Your task to perform on an android device: Check the latest toasters on Target. Image 0: 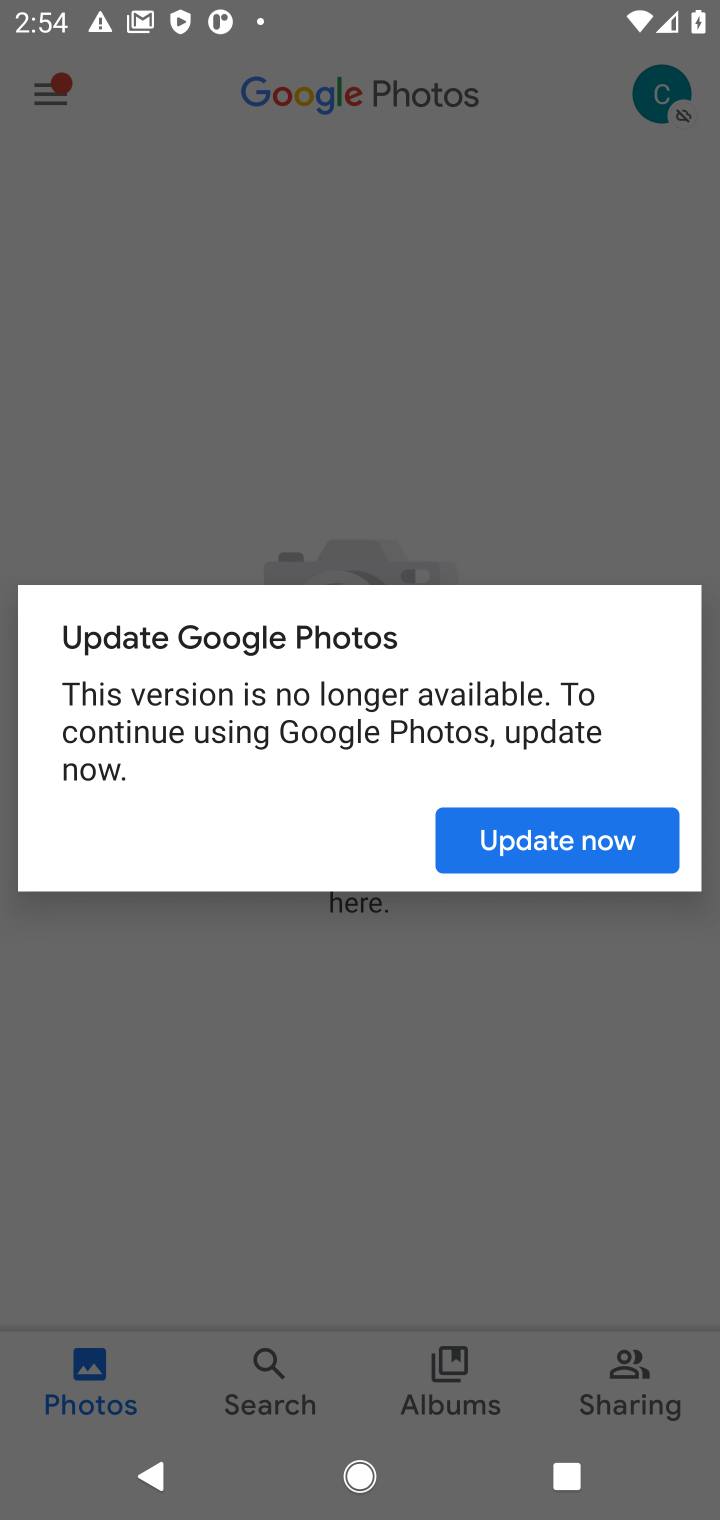
Step 0: press home button
Your task to perform on an android device: Check the latest toasters on Target. Image 1: 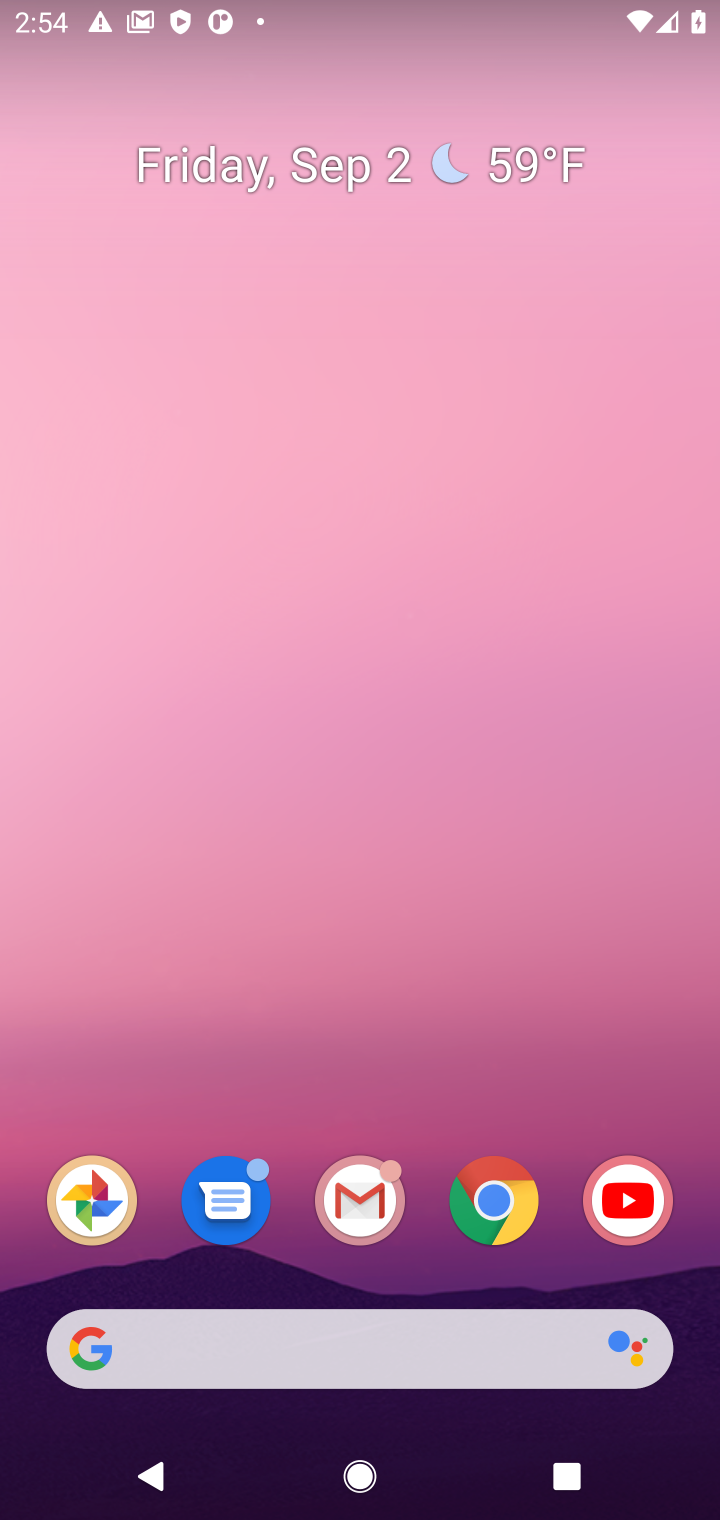
Step 1: click (493, 1206)
Your task to perform on an android device: Check the latest toasters on Target. Image 2: 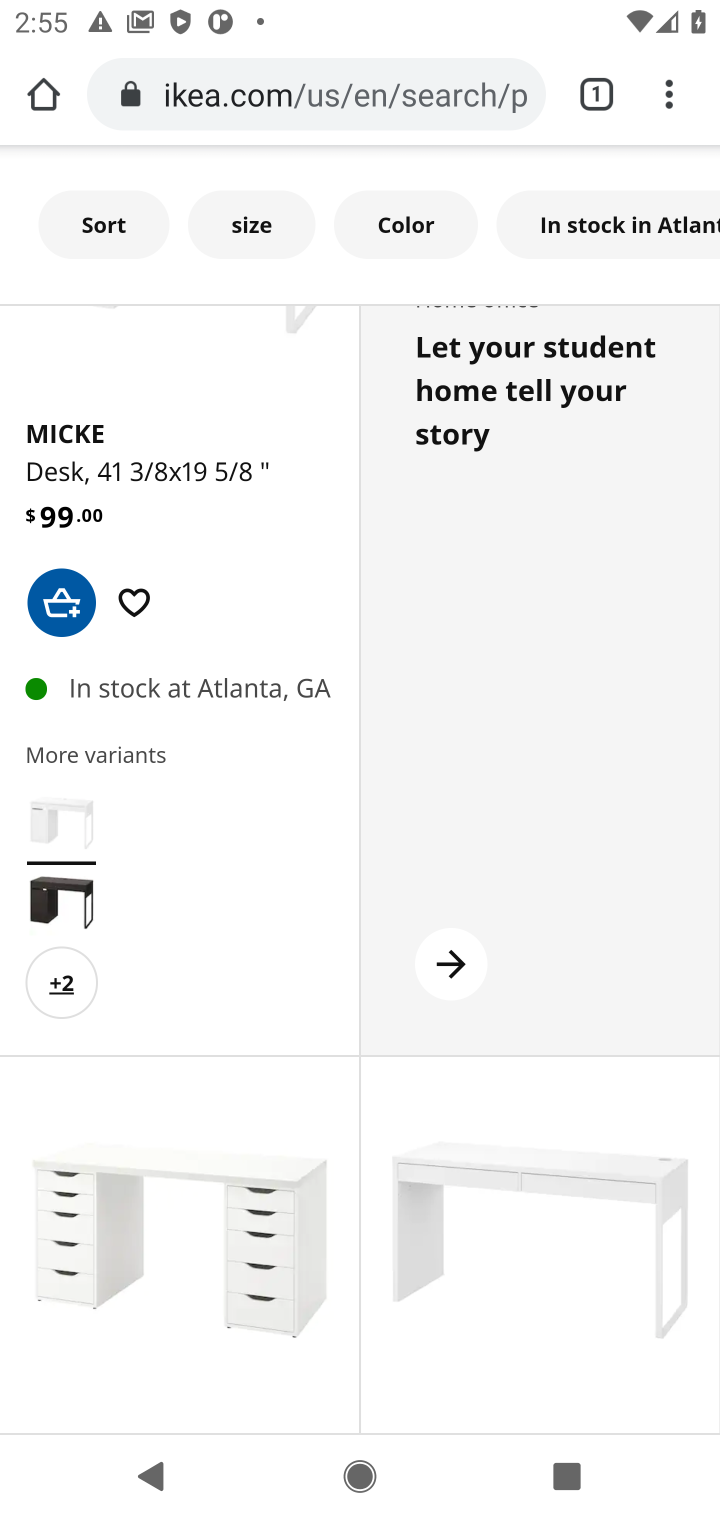
Step 2: click (368, 77)
Your task to perform on an android device: Check the latest toasters on Target. Image 3: 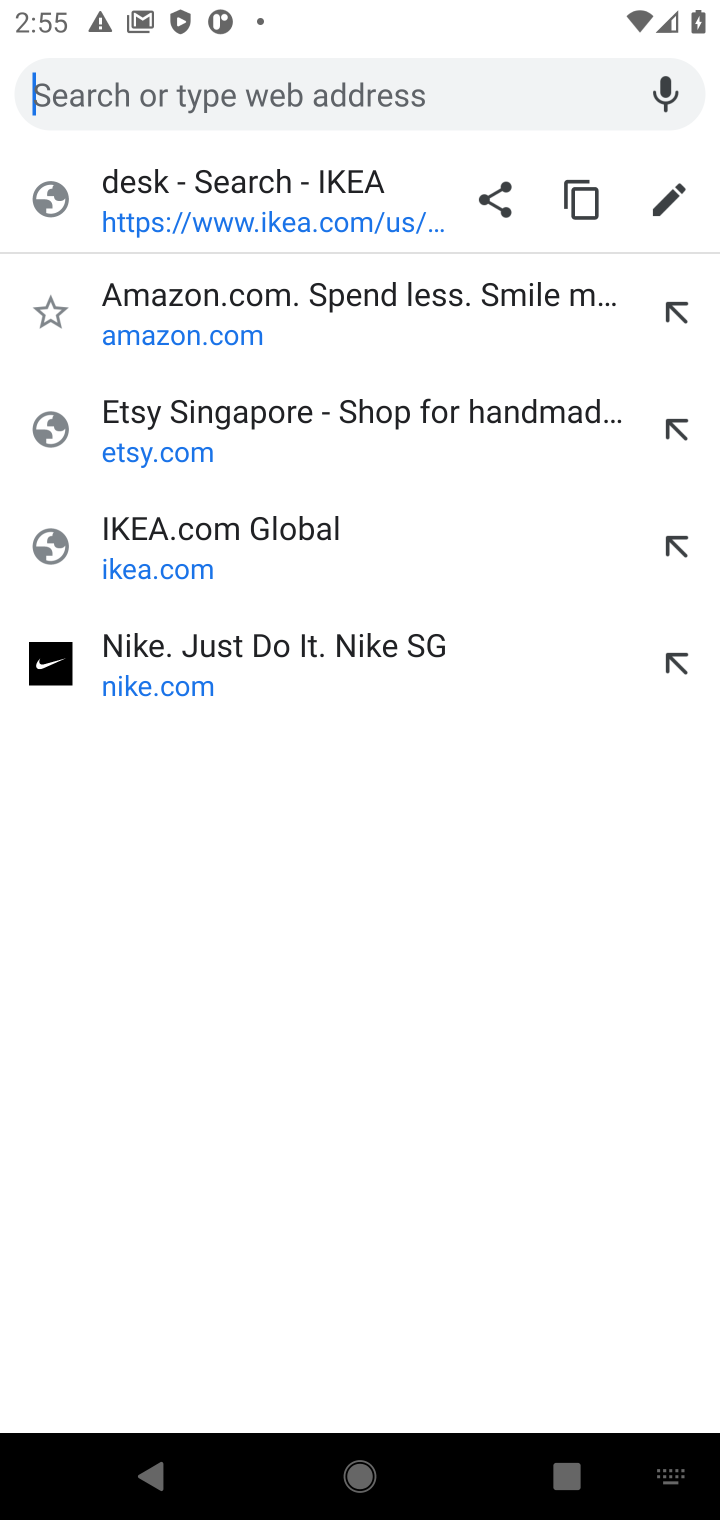
Step 3: click (355, 88)
Your task to perform on an android device: Check the latest toasters on Target. Image 4: 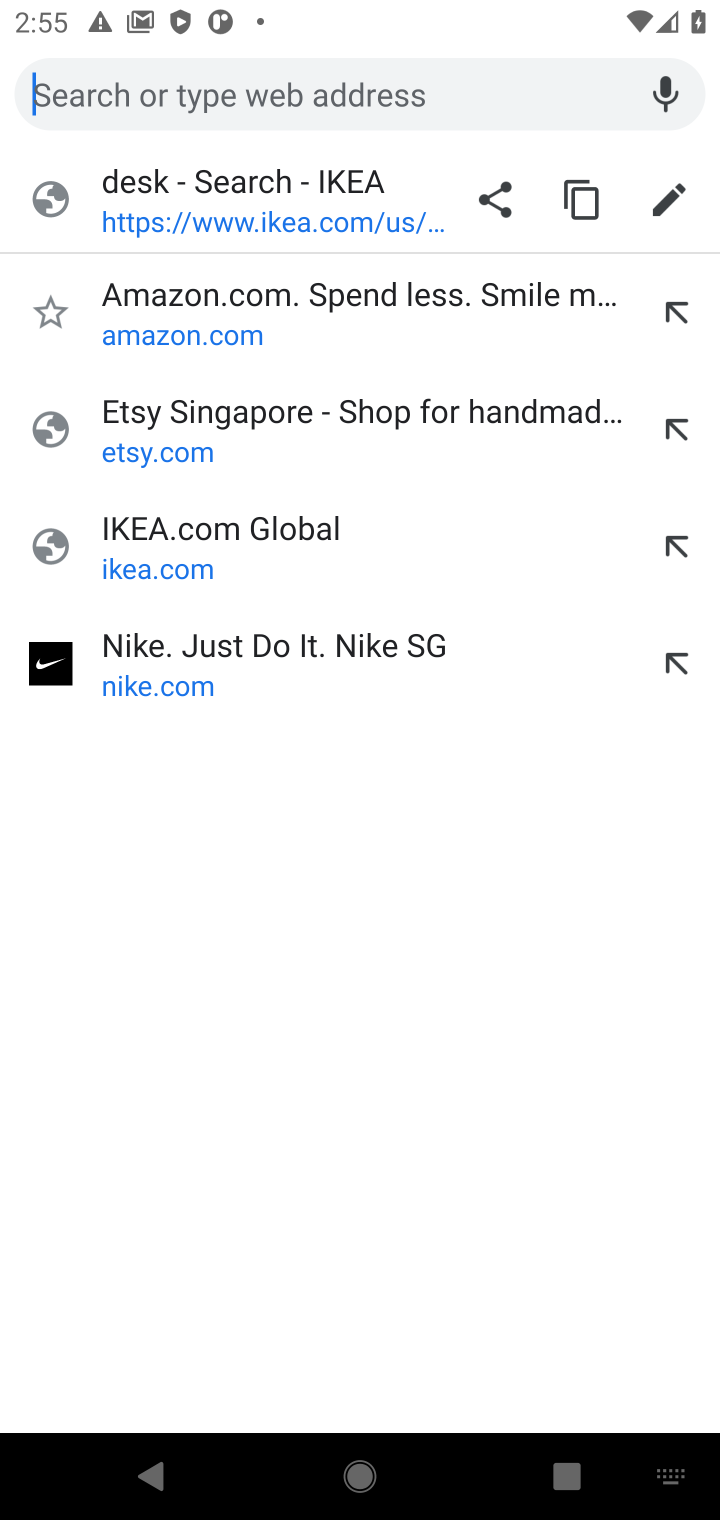
Step 4: type " Target"
Your task to perform on an android device: Check the latest toasters on Target. Image 5: 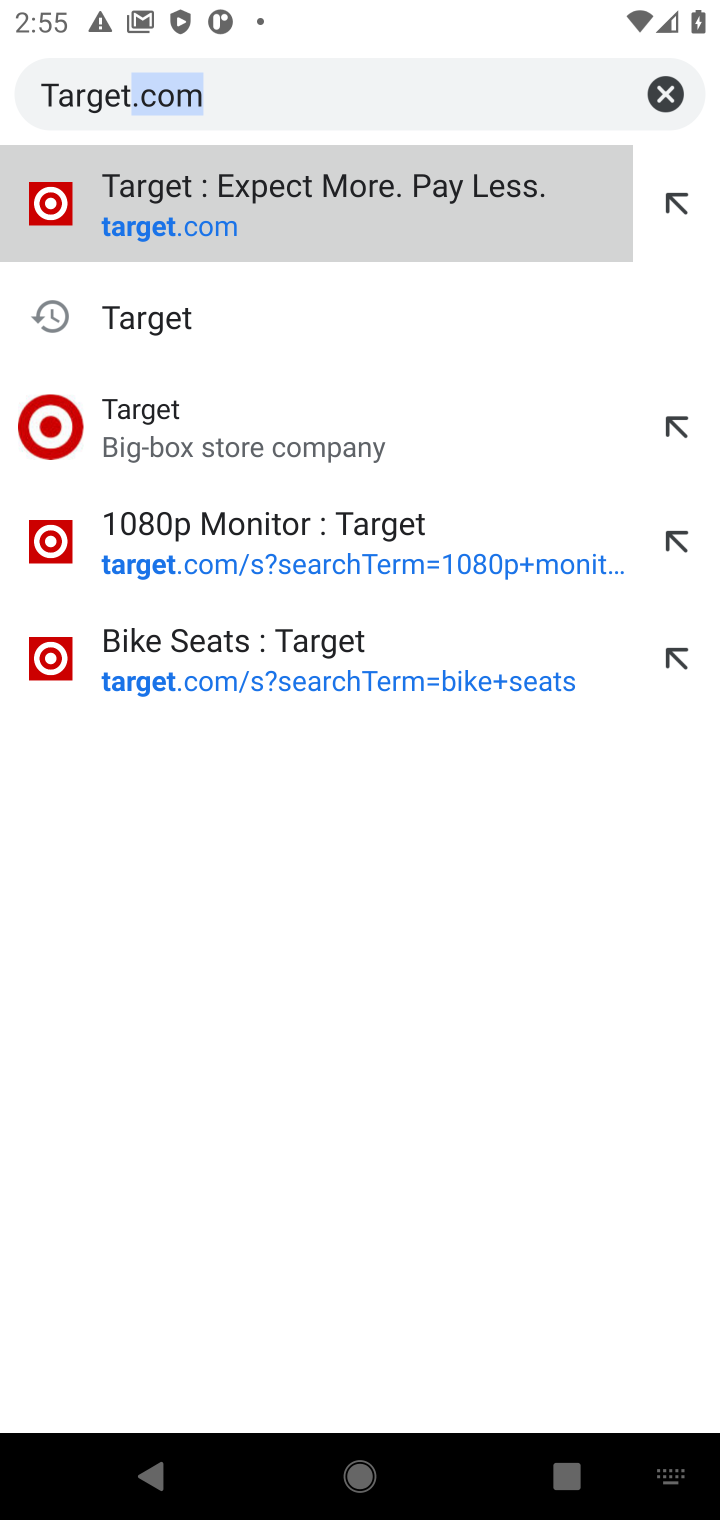
Step 5: press enter
Your task to perform on an android device: Check the latest toasters on Target. Image 6: 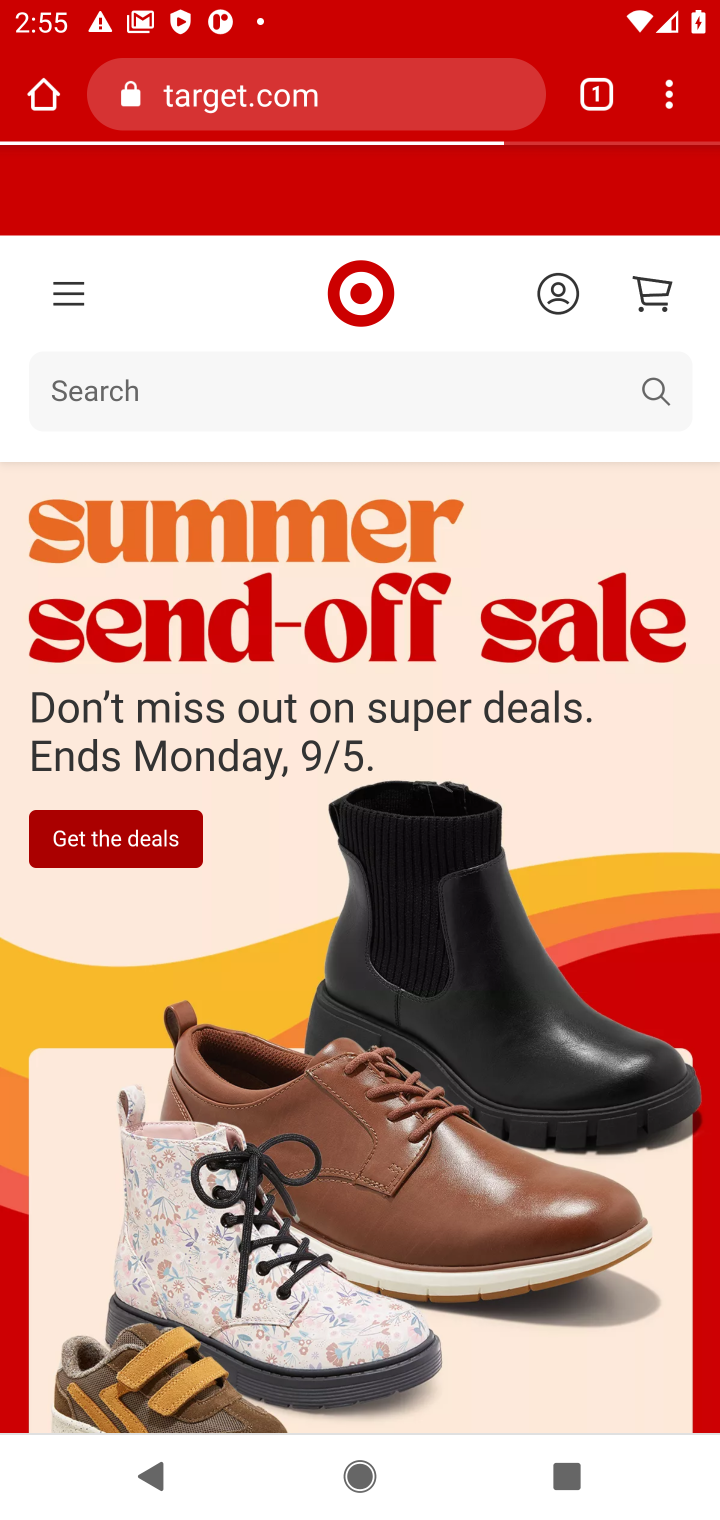
Step 6: click (466, 388)
Your task to perform on an android device: Check the latest toasters on Target. Image 7: 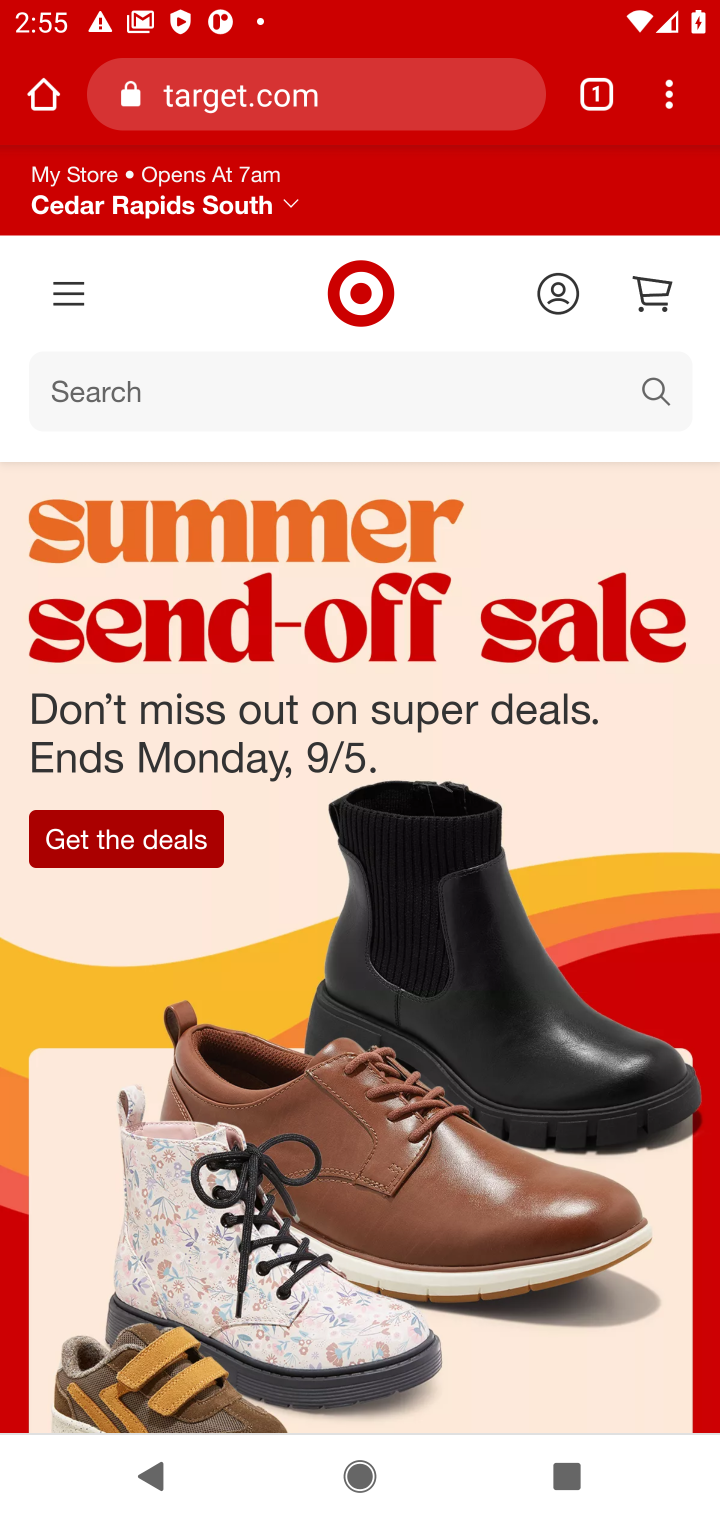
Step 7: click (94, 390)
Your task to perform on an android device: Check the latest toasters on Target. Image 8: 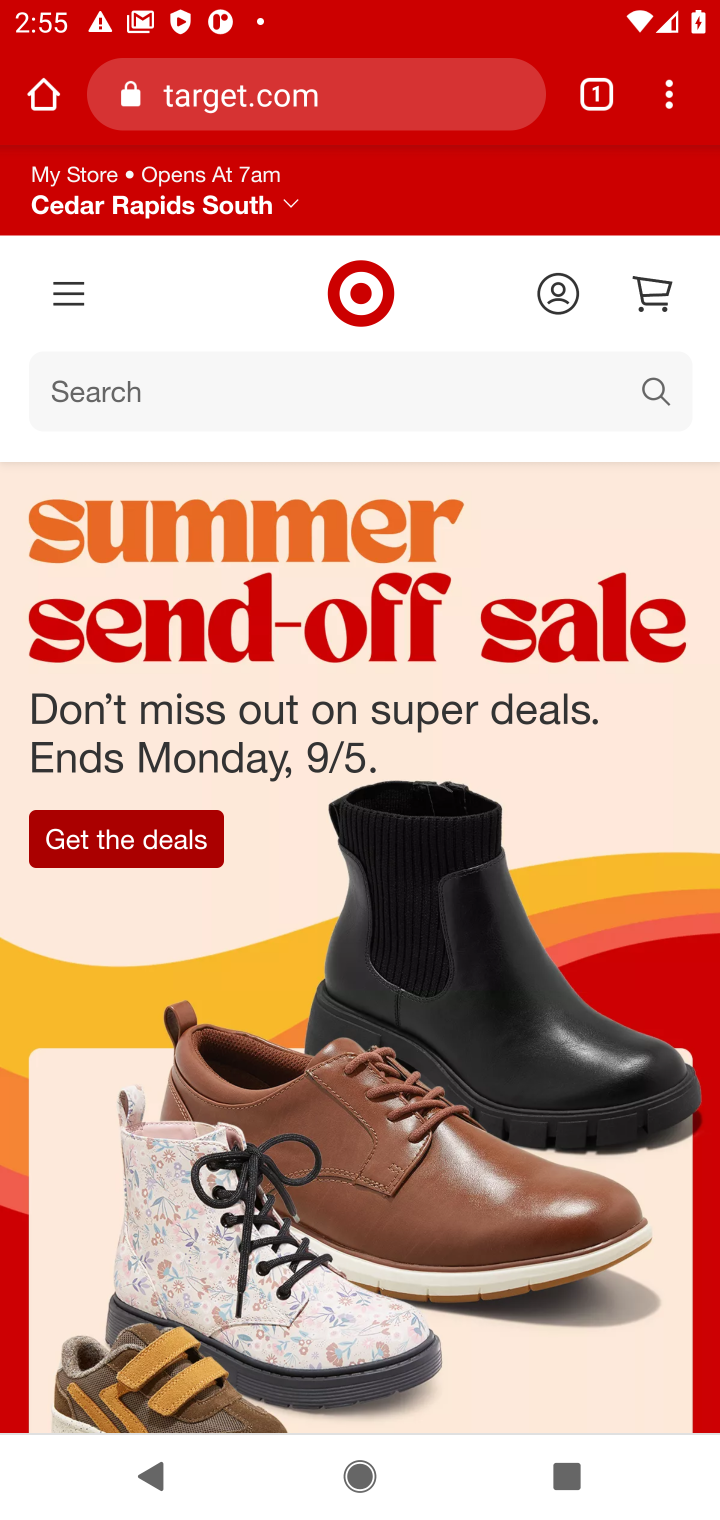
Step 8: click (643, 394)
Your task to perform on an android device: Check the latest toasters on Target. Image 9: 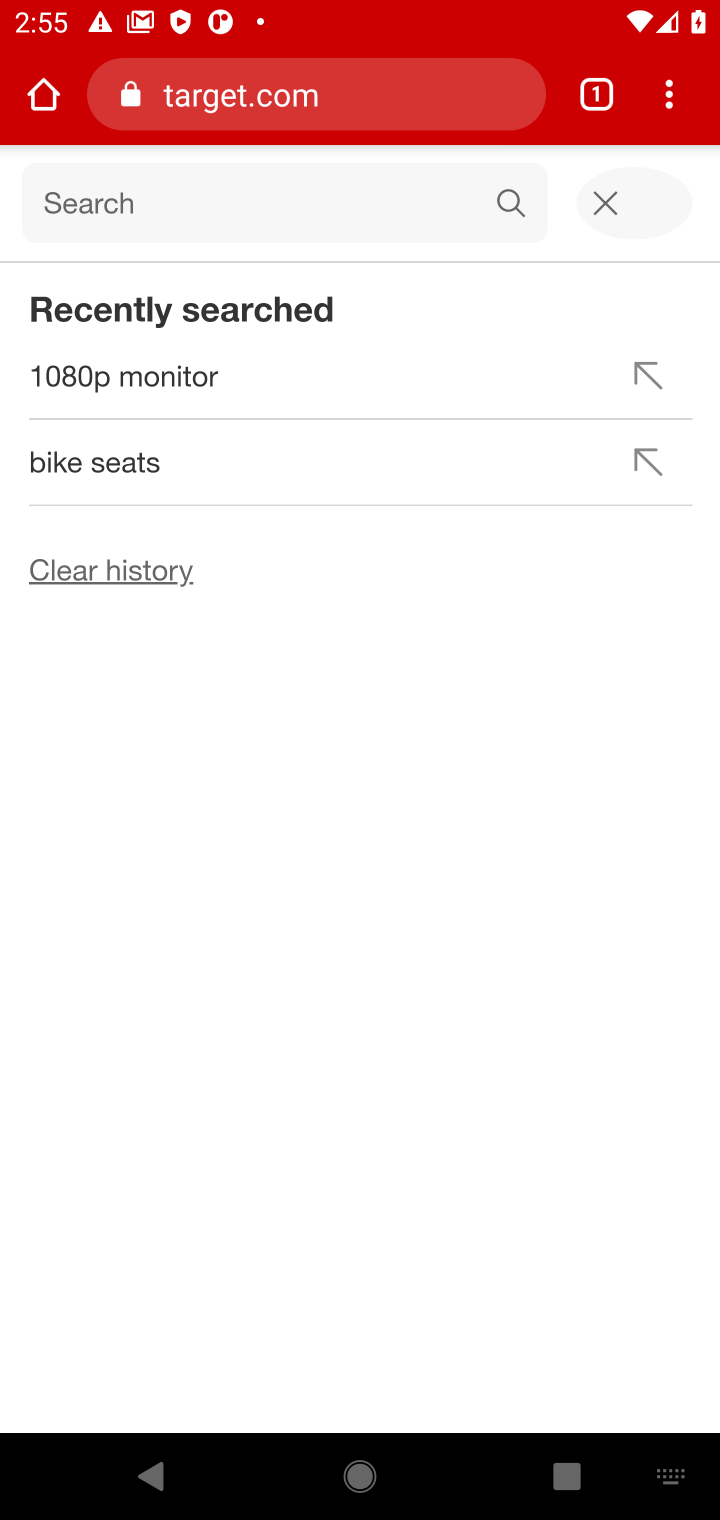
Step 9: click (91, 195)
Your task to perform on an android device: Check the latest toasters on Target. Image 10: 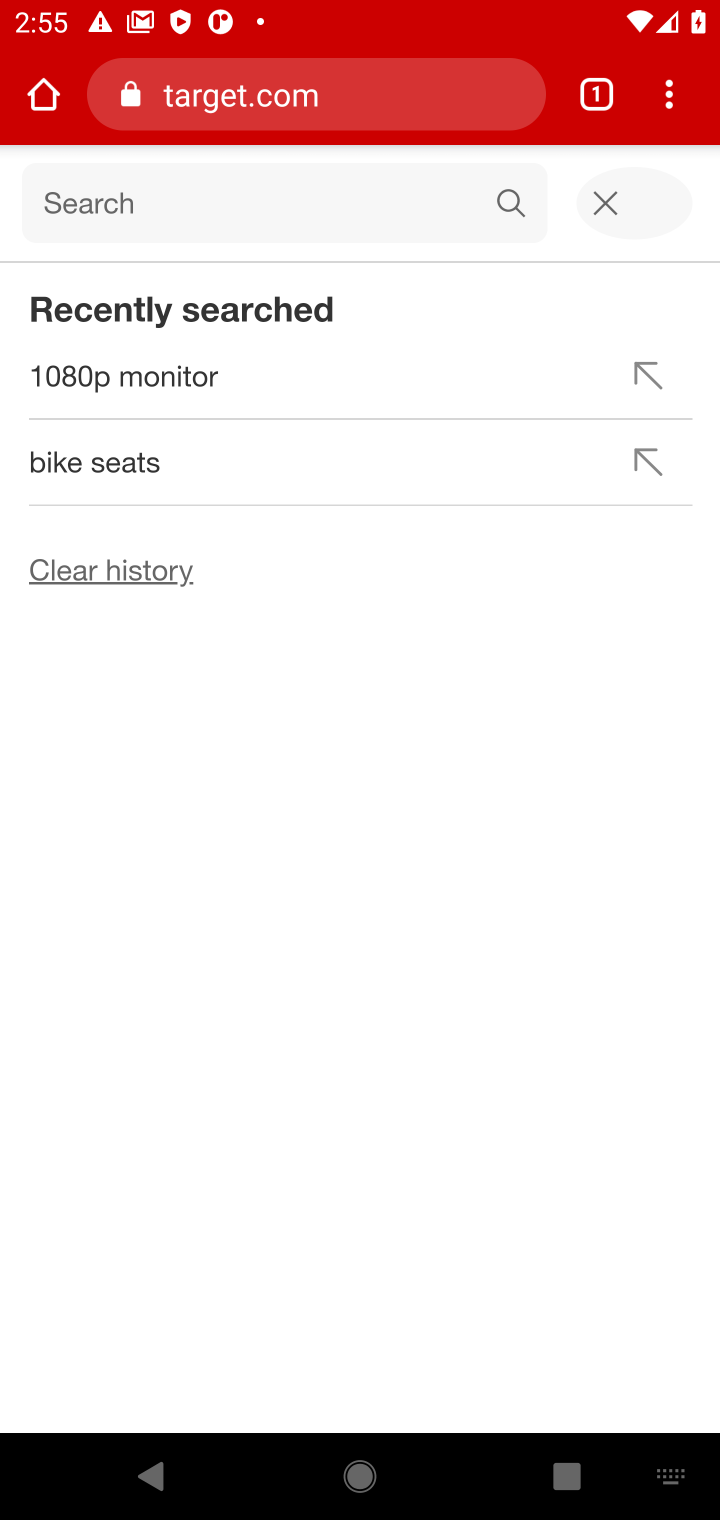
Step 10: type " toasters"
Your task to perform on an android device: Check the latest toasters on Target. Image 11: 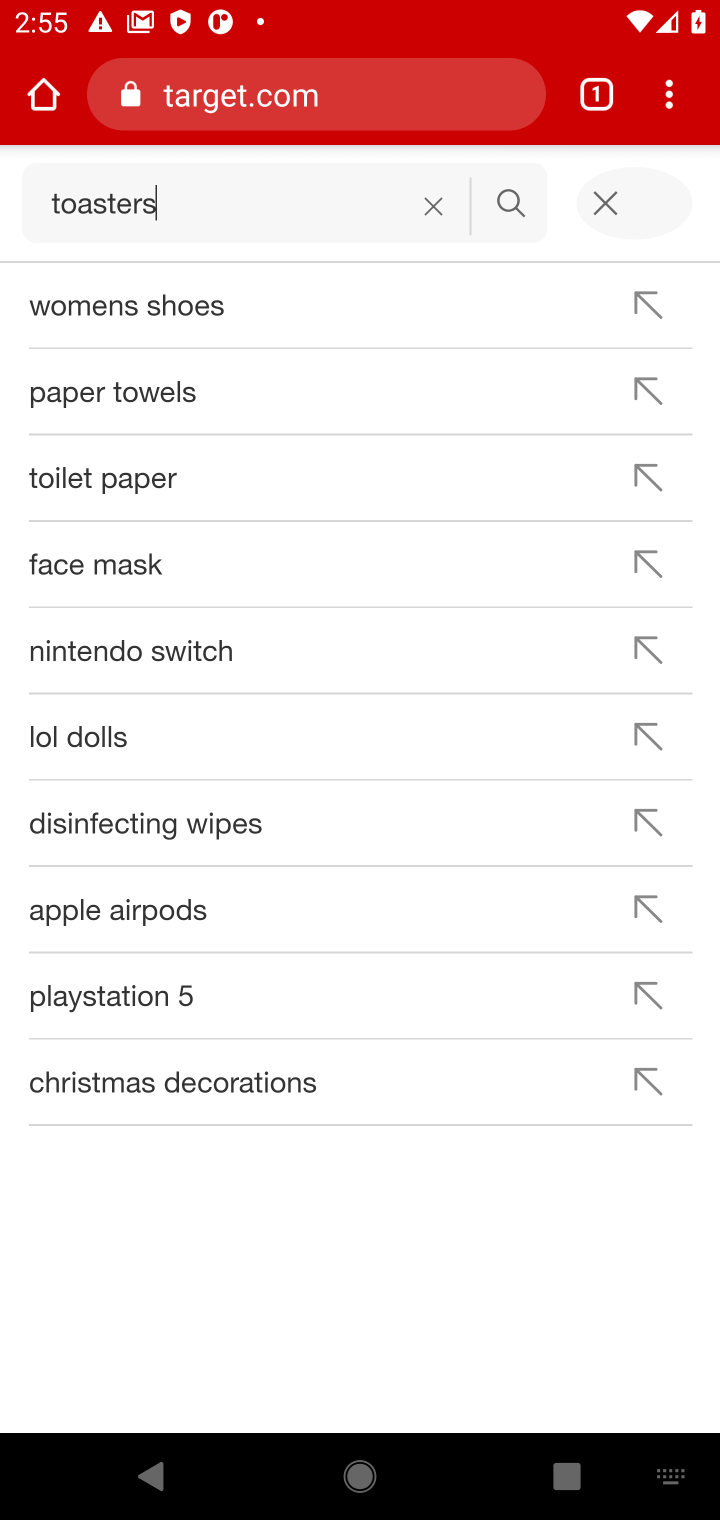
Step 11: press enter
Your task to perform on an android device: Check the latest toasters on Target. Image 12: 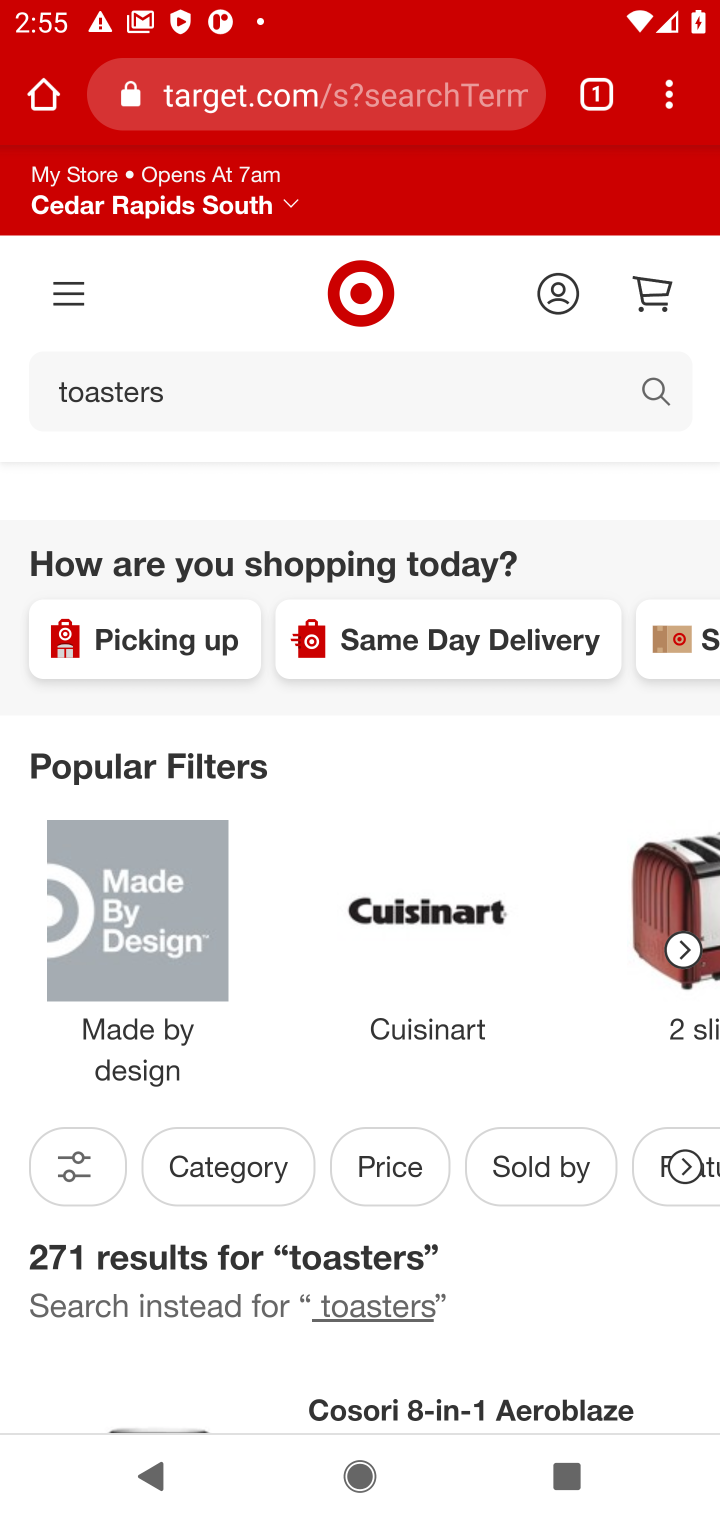
Step 12: task complete